Your task to perform on an android device: toggle show notifications on the lock screen Image 0: 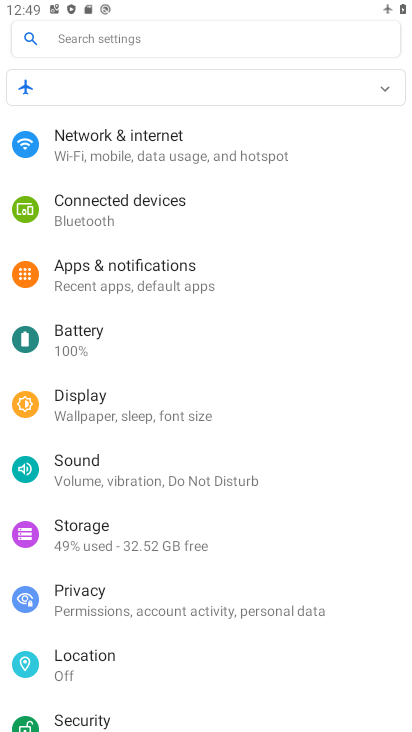
Step 0: click (163, 269)
Your task to perform on an android device: toggle show notifications on the lock screen Image 1: 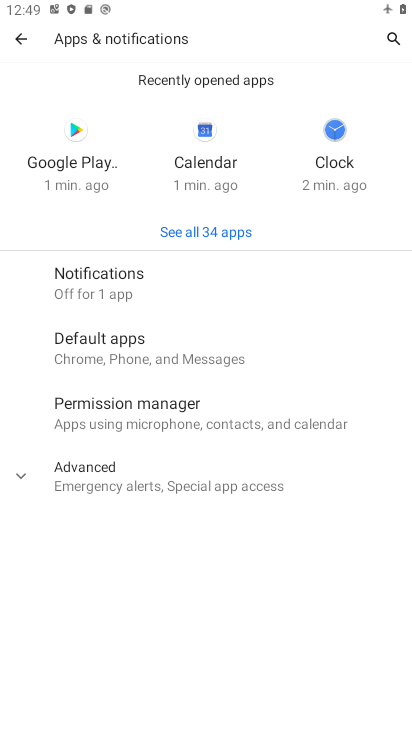
Step 1: click (151, 284)
Your task to perform on an android device: toggle show notifications on the lock screen Image 2: 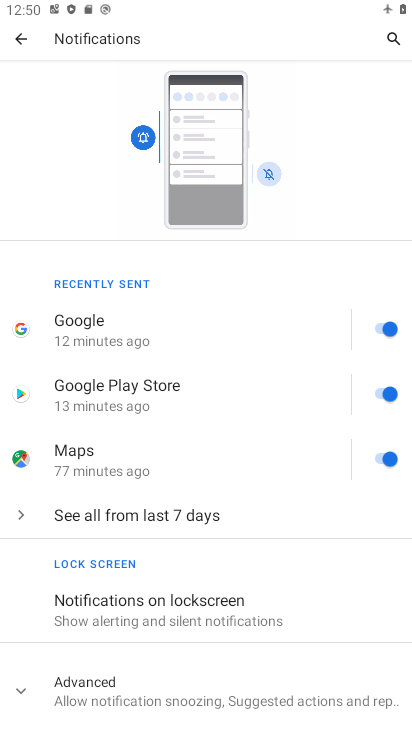
Step 2: click (164, 616)
Your task to perform on an android device: toggle show notifications on the lock screen Image 3: 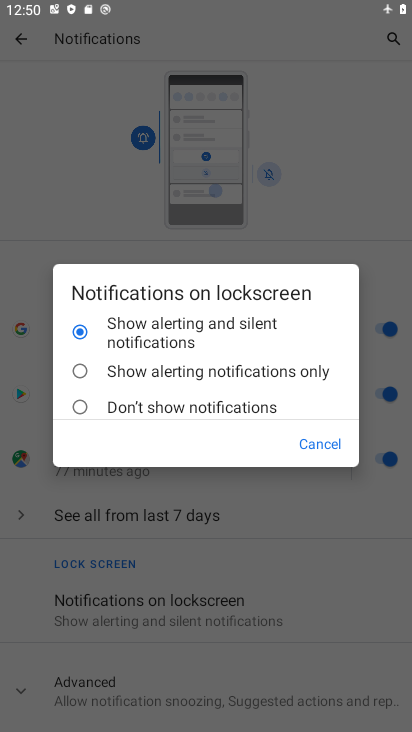
Step 3: click (189, 371)
Your task to perform on an android device: toggle show notifications on the lock screen Image 4: 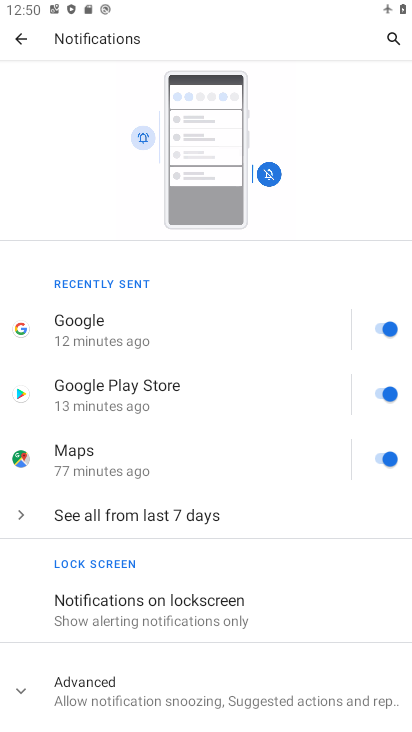
Step 4: task complete